Your task to perform on an android device: Open the phone app and click the voicemail tab. Image 0: 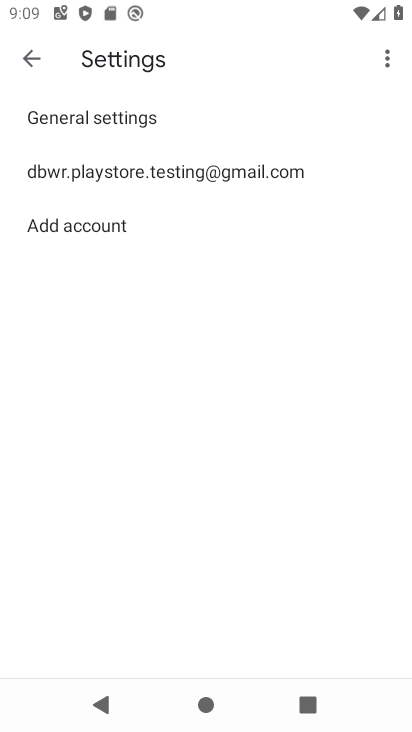
Step 0: press home button
Your task to perform on an android device: Open the phone app and click the voicemail tab. Image 1: 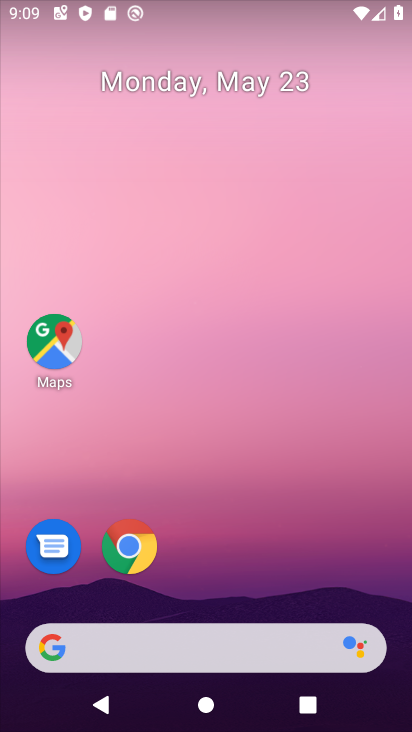
Step 1: drag from (385, 605) to (329, 51)
Your task to perform on an android device: Open the phone app and click the voicemail tab. Image 2: 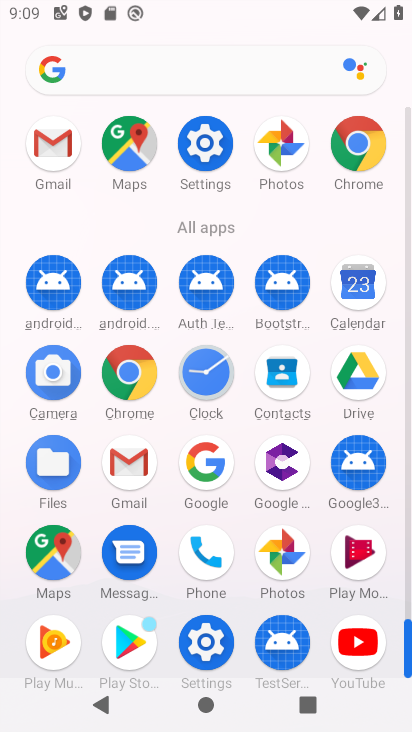
Step 2: click (199, 548)
Your task to perform on an android device: Open the phone app and click the voicemail tab. Image 3: 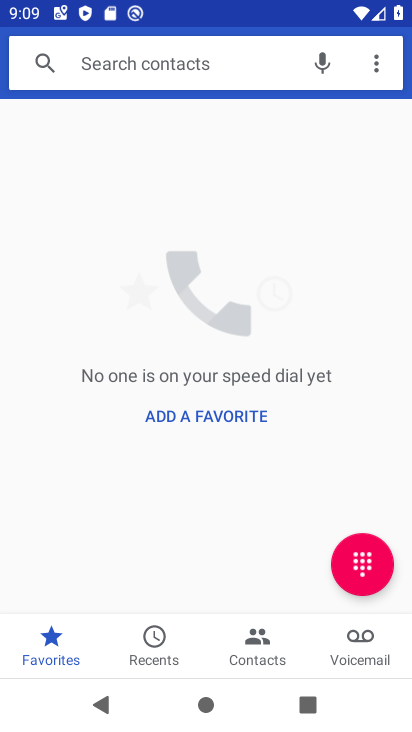
Step 3: click (356, 644)
Your task to perform on an android device: Open the phone app and click the voicemail tab. Image 4: 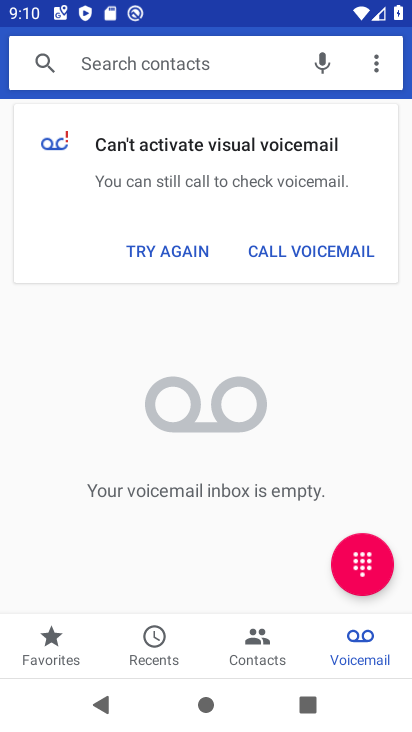
Step 4: task complete